Your task to perform on an android device: Is it going to rain tomorrow? Image 0: 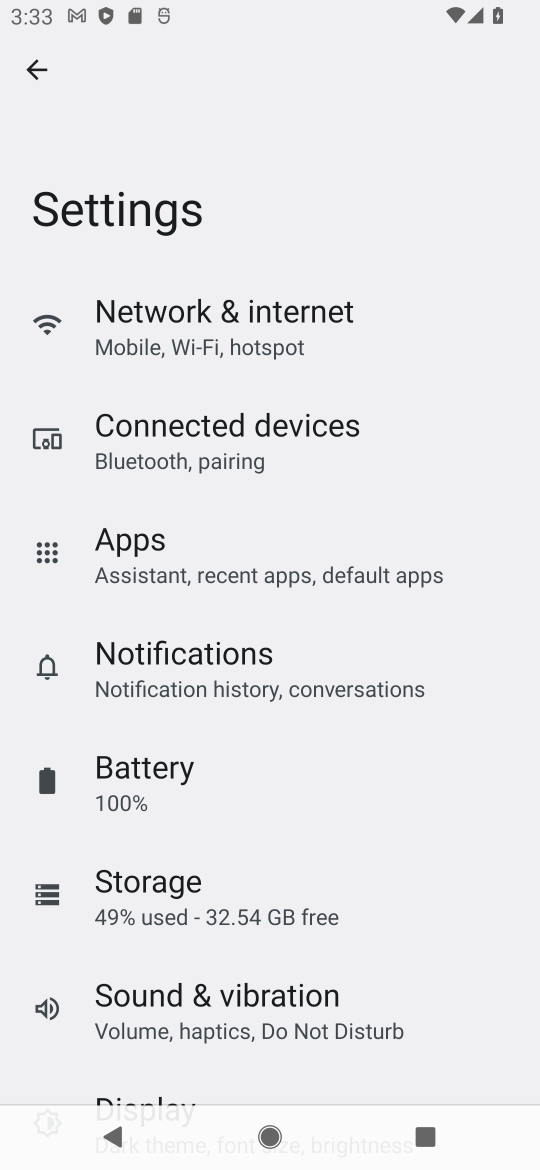
Step 0: press home button
Your task to perform on an android device: Is it going to rain tomorrow? Image 1: 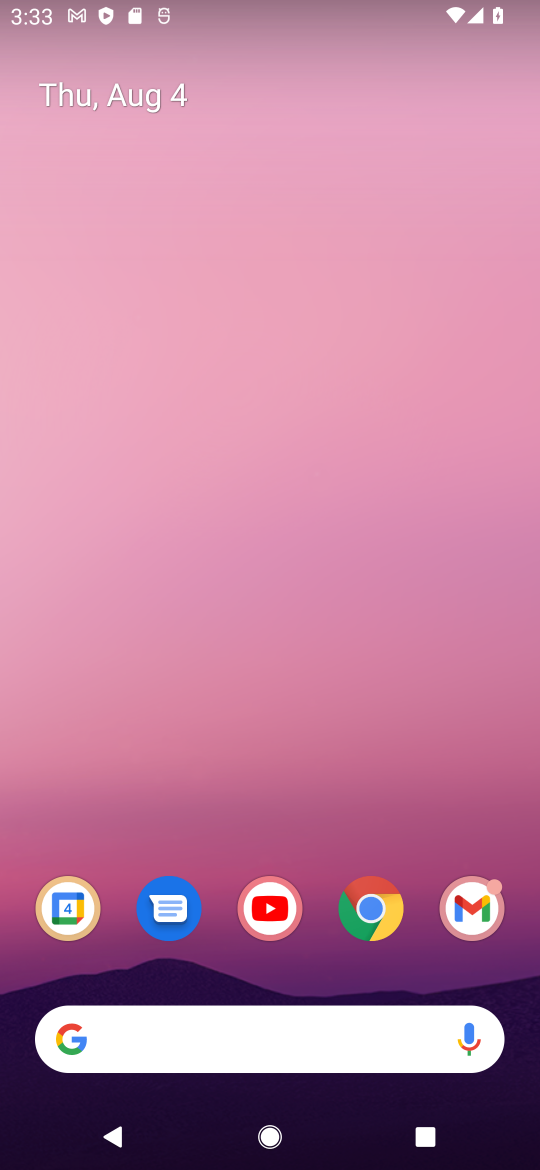
Step 1: click (243, 1043)
Your task to perform on an android device: Is it going to rain tomorrow? Image 2: 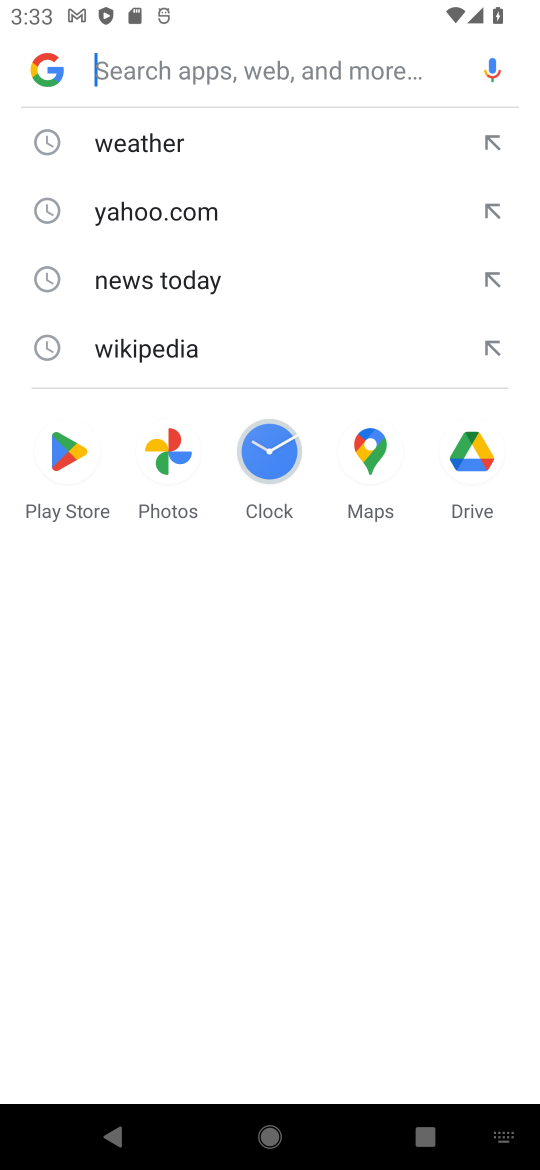
Step 2: type "is it going to rain tomorrow"
Your task to perform on an android device: Is it going to rain tomorrow? Image 3: 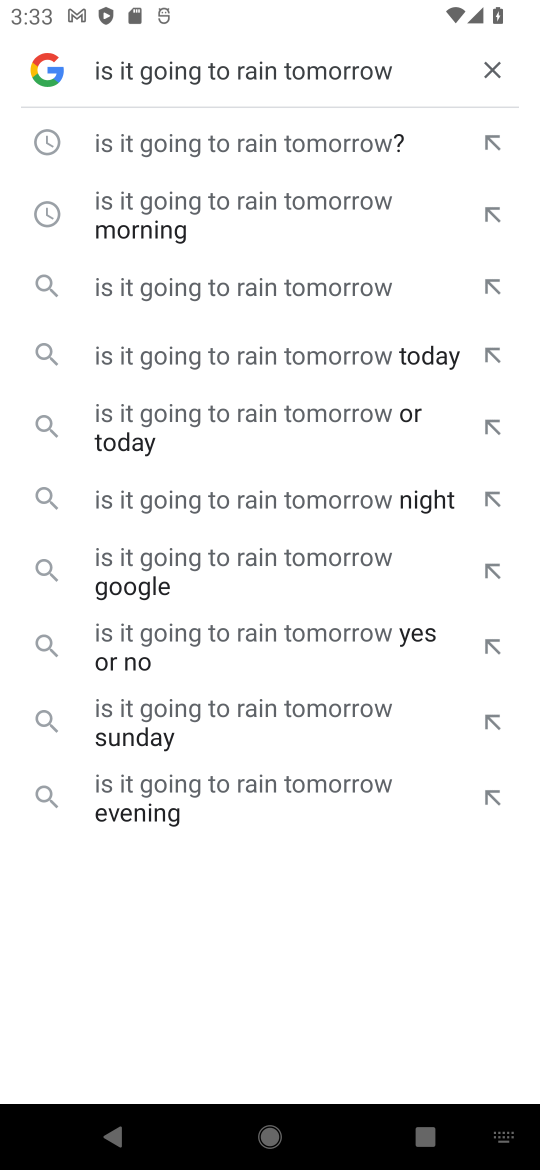
Step 3: click (391, 151)
Your task to perform on an android device: Is it going to rain tomorrow? Image 4: 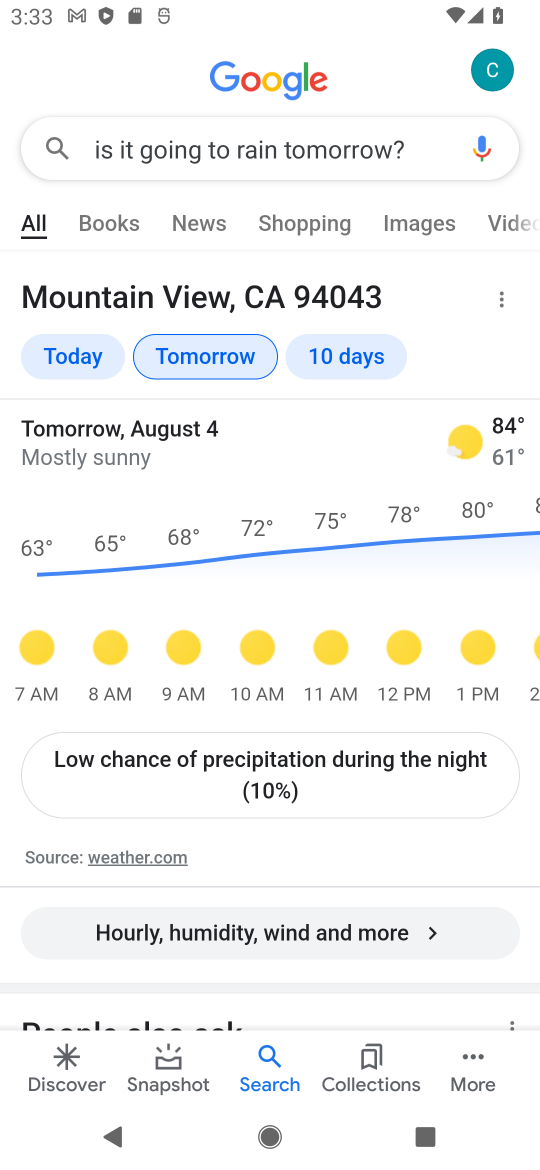
Step 4: task complete